Your task to perform on an android device: Open Youtube and go to the subscriptions tab Image 0: 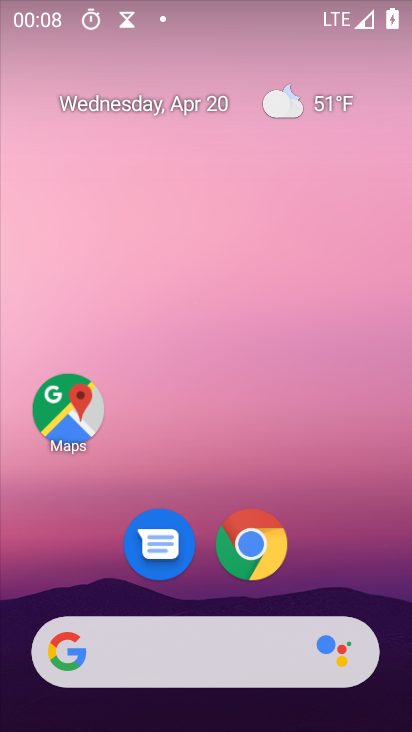
Step 0: drag from (346, 580) to (230, 40)
Your task to perform on an android device: Open Youtube and go to the subscriptions tab Image 1: 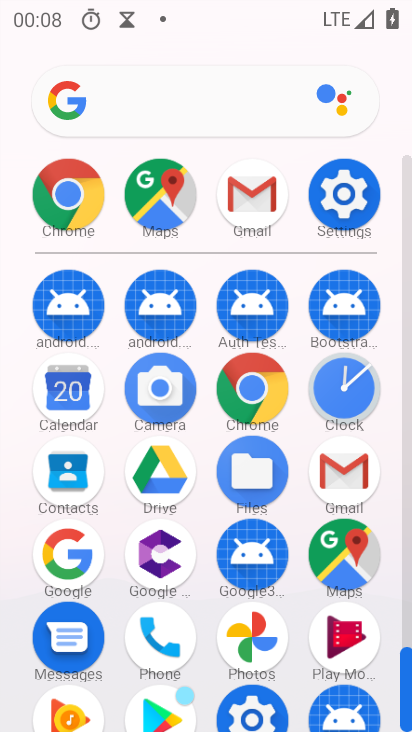
Step 1: drag from (297, 631) to (269, 396)
Your task to perform on an android device: Open Youtube and go to the subscriptions tab Image 2: 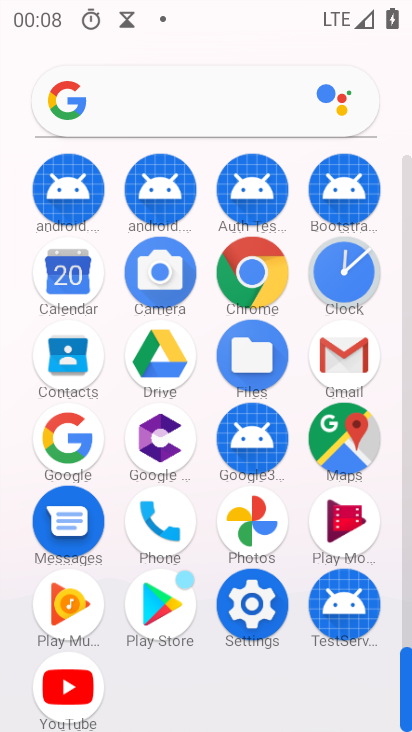
Step 2: click (71, 697)
Your task to perform on an android device: Open Youtube and go to the subscriptions tab Image 3: 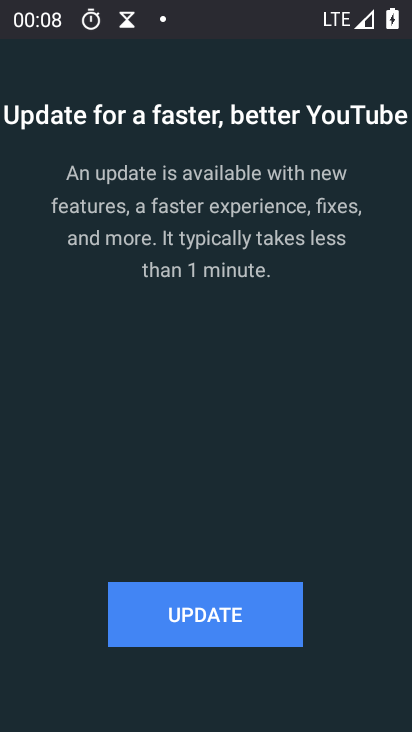
Step 3: click (214, 624)
Your task to perform on an android device: Open Youtube and go to the subscriptions tab Image 4: 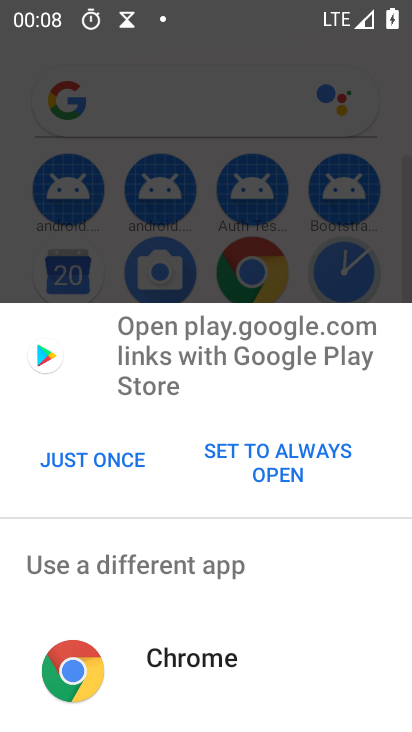
Step 4: click (80, 455)
Your task to perform on an android device: Open Youtube and go to the subscriptions tab Image 5: 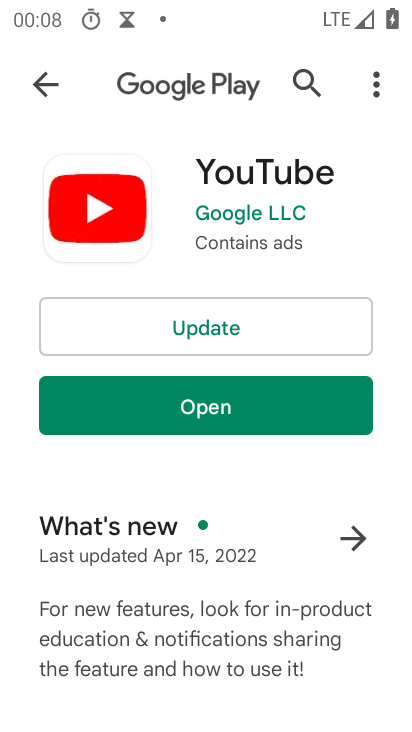
Step 5: click (211, 325)
Your task to perform on an android device: Open Youtube and go to the subscriptions tab Image 6: 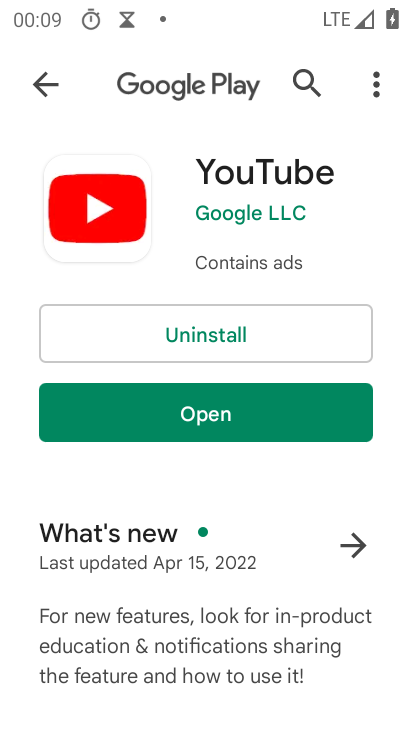
Step 6: click (242, 419)
Your task to perform on an android device: Open Youtube and go to the subscriptions tab Image 7: 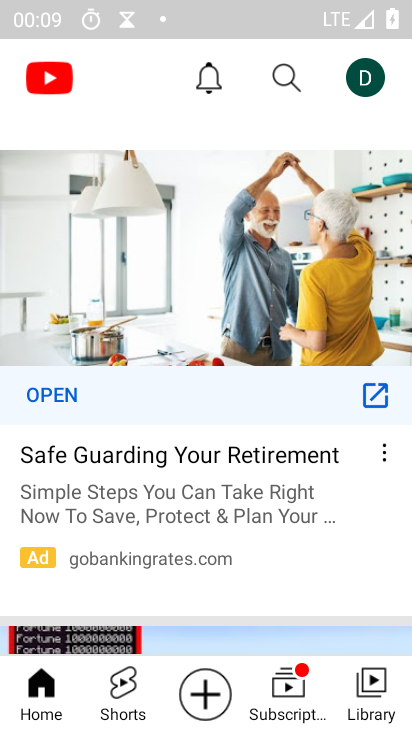
Step 7: click (287, 695)
Your task to perform on an android device: Open Youtube and go to the subscriptions tab Image 8: 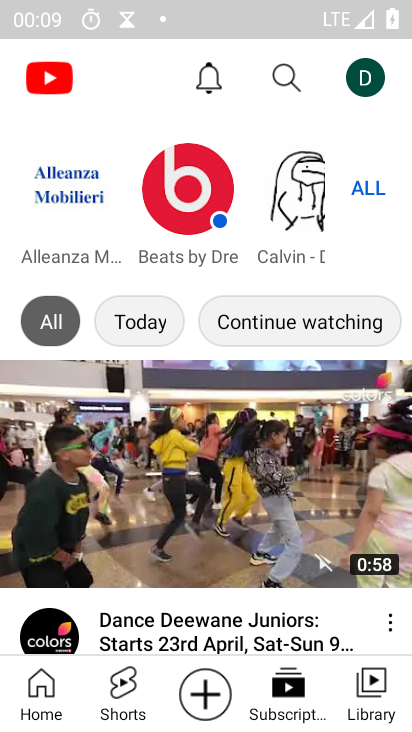
Step 8: task complete